Your task to perform on an android device: What's the weather today? Image 0: 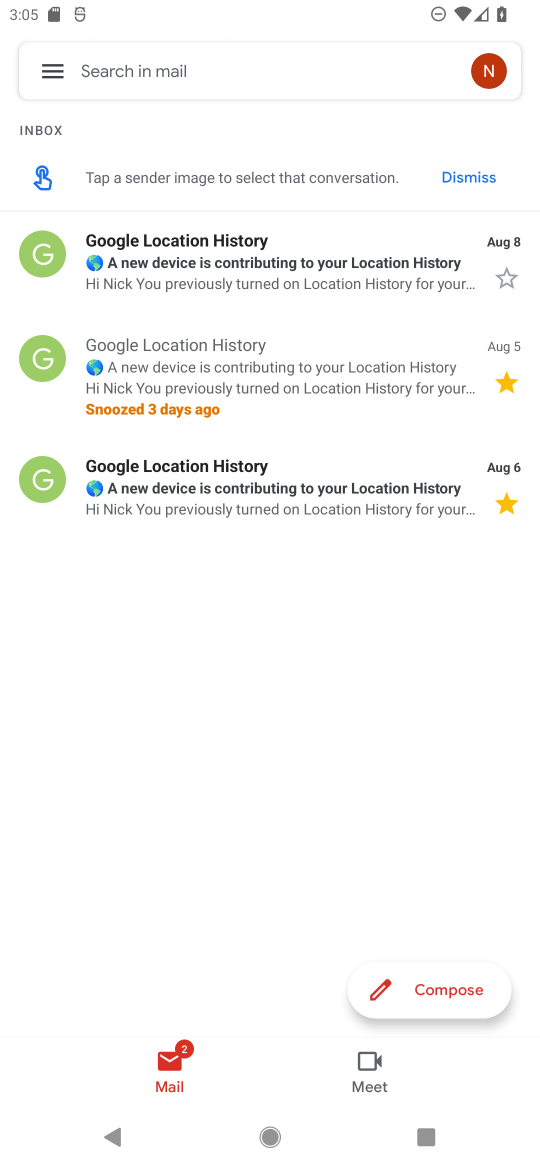
Step 0: press home button
Your task to perform on an android device: What's the weather today? Image 1: 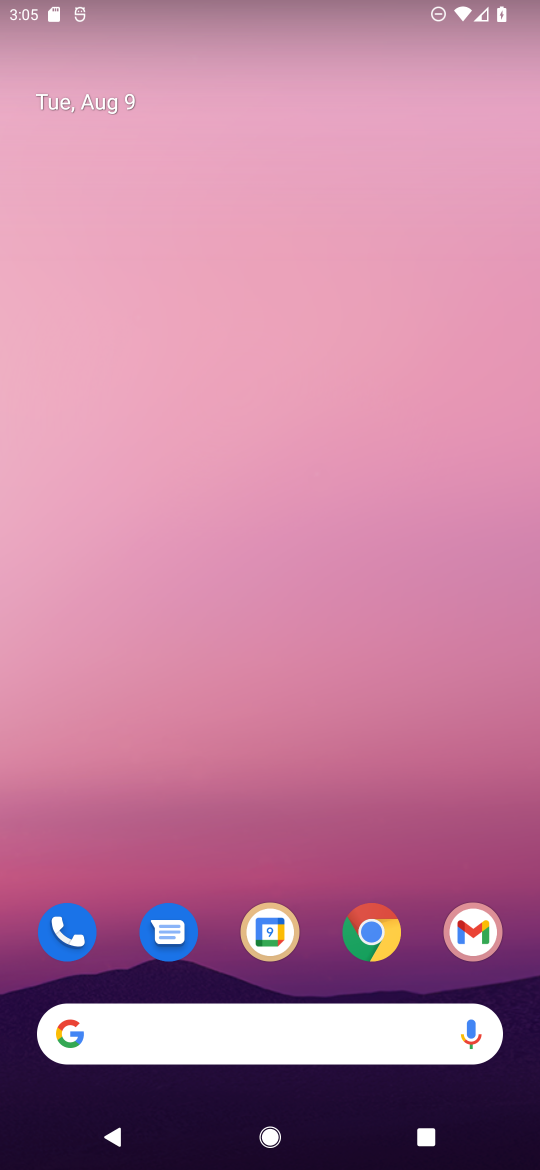
Step 1: click (167, 1038)
Your task to perform on an android device: What's the weather today? Image 2: 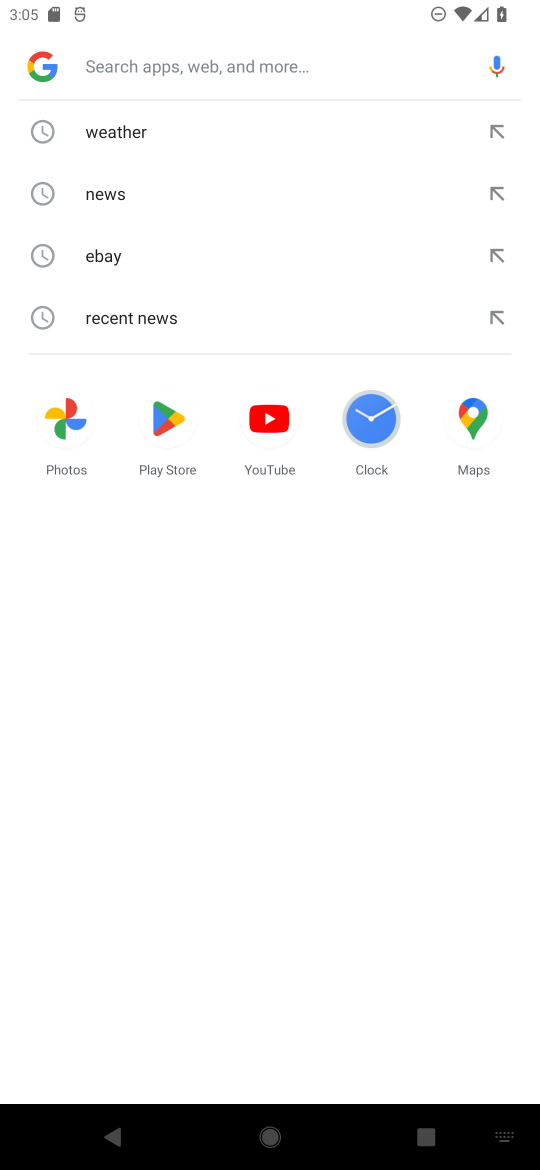
Step 2: type "What's the weather today?"
Your task to perform on an android device: What's the weather today? Image 3: 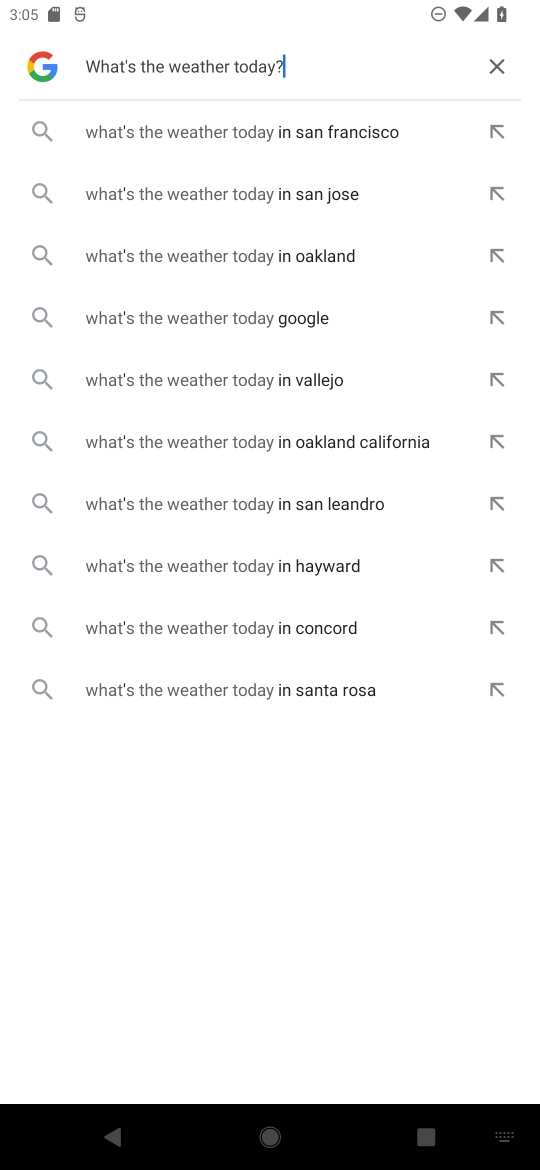
Step 3: type ""
Your task to perform on an android device: What's the weather today? Image 4: 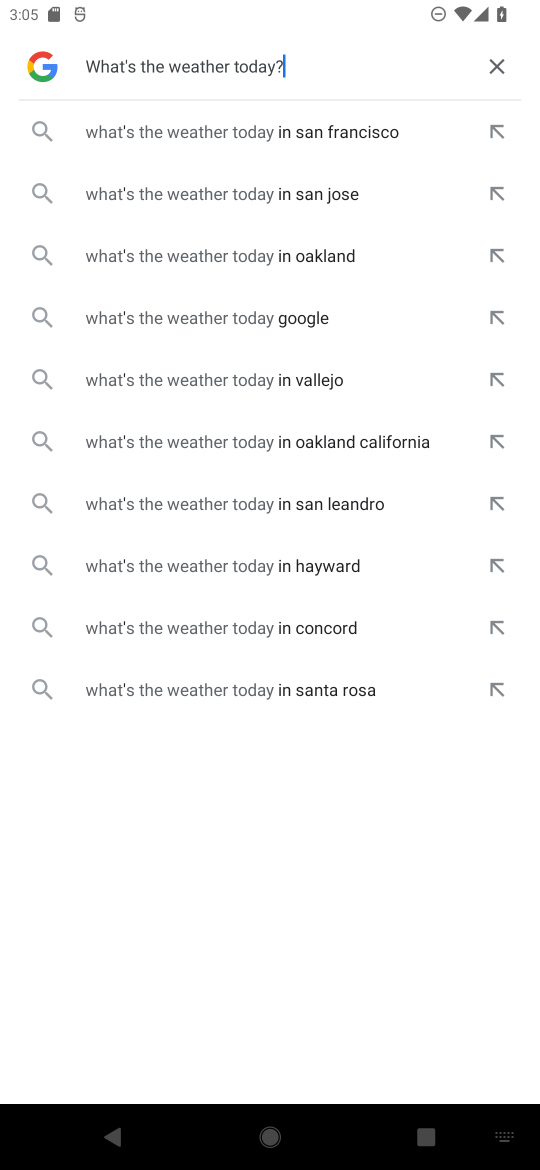
Step 4: task complete